Your task to perform on an android device: What is the recent news? Image 0: 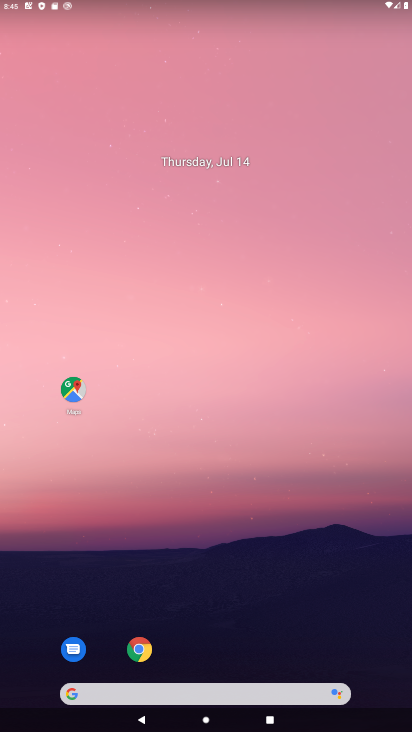
Step 0: click (241, 688)
Your task to perform on an android device: What is the recent news? Image 1: 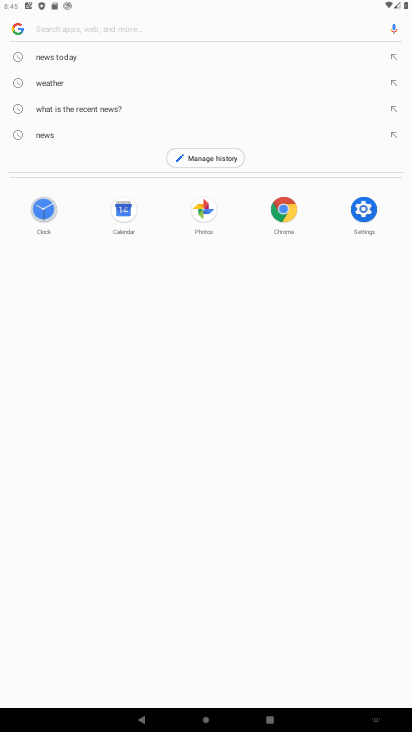
Step 1: click (90, 106)
Your task to perform on an android device: What is the recent news? Image 2: 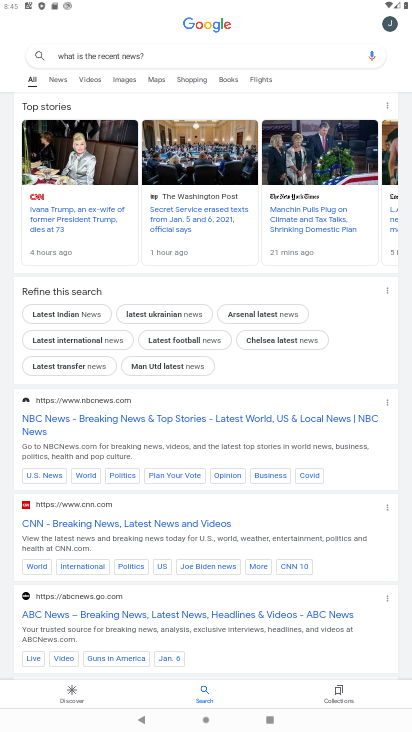
Step 2: task complete